Your task to perform on an android device: turn on location history Image 0: 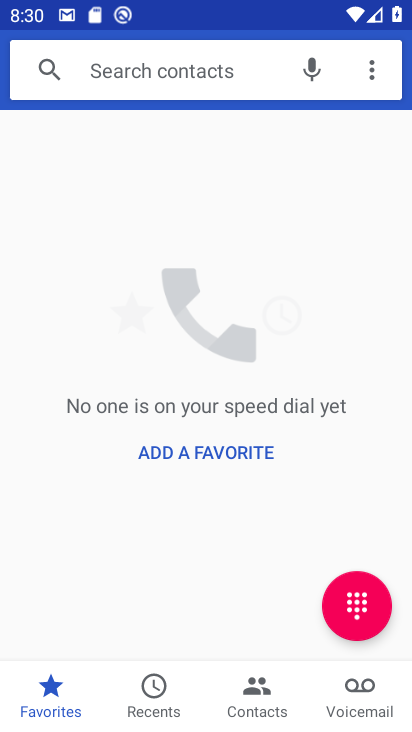
Step 0: press home button
Your task to perform on an android device: turn on location history Image 1: 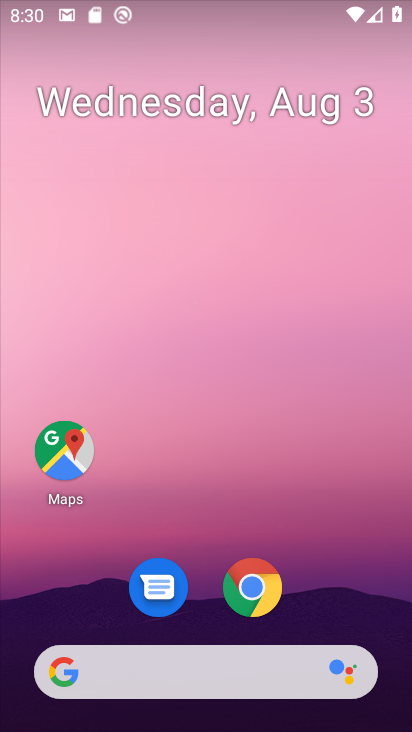
Step 1: drag from (223, 484) to (217, 24)
Your task to perform on an android device: turn on location history Image 2: 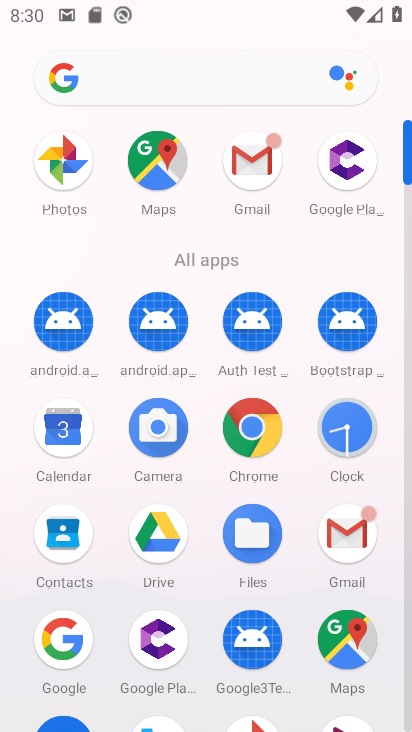
Step 2: click (345, 634)
Your task to perform on an android device: turn on location history Image 3: 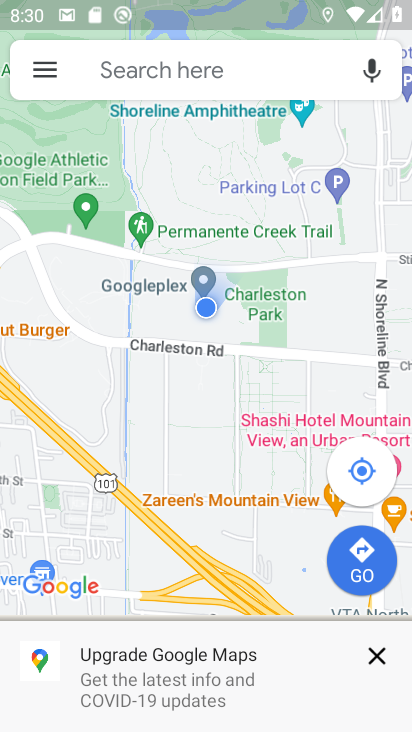
Step 3: click (45, 82)
Your task to perform on an android device: turn on location history Image 4: 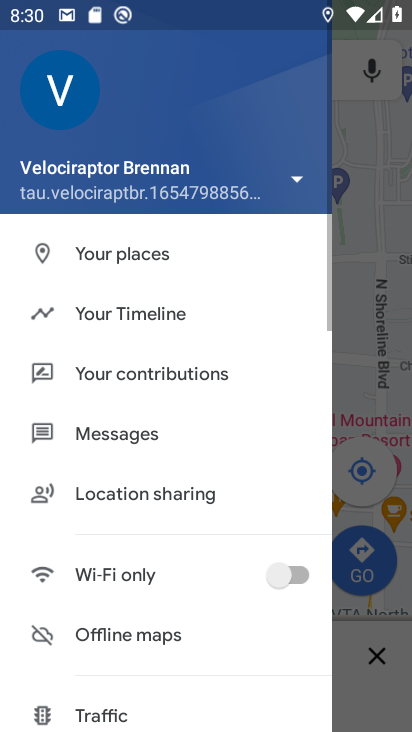
Step 4: click (157, 303)
Your task to perform on an android device: turn on location history Image 5: 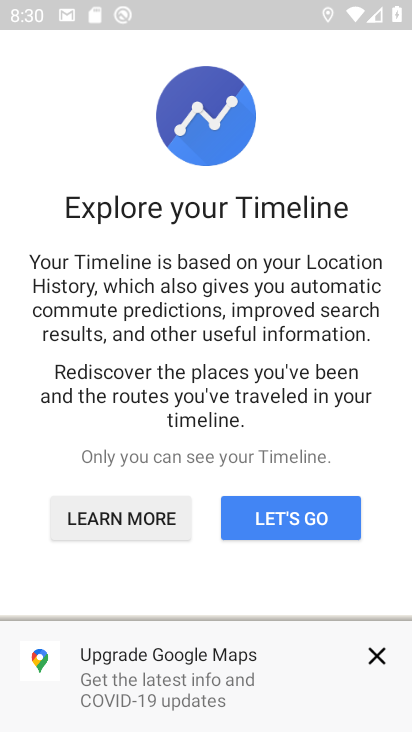
Step 5: click (266, 520)
Your task to perform on an android device: turn on location history Image 6: 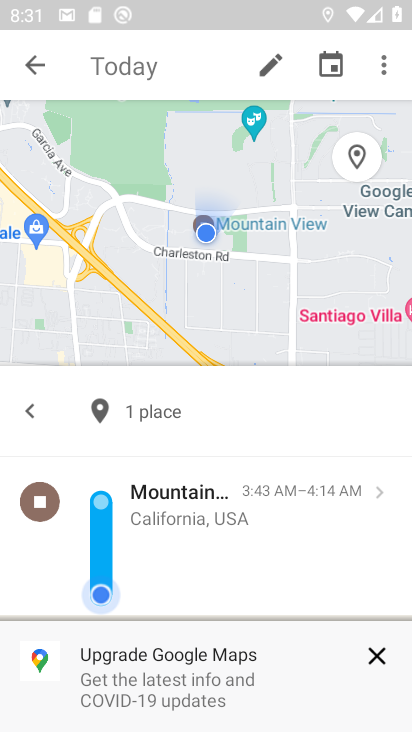
Step 6: click (381, 65)
Your task to perform on an android device: turn on location history Image 7: 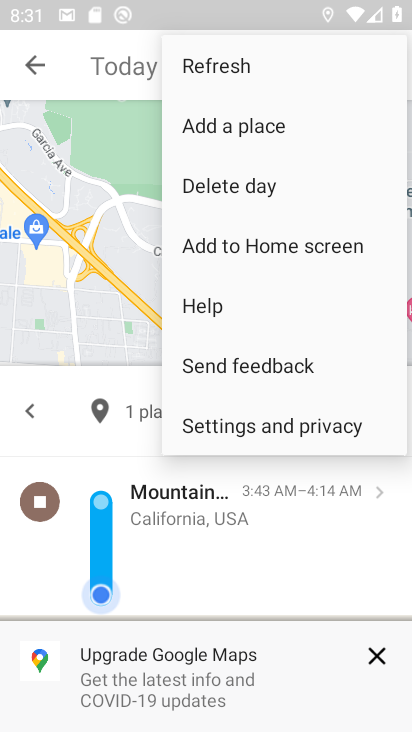
Step 7: click (276, 421)
Your task to perform on an android device: turn on location history Image 8: 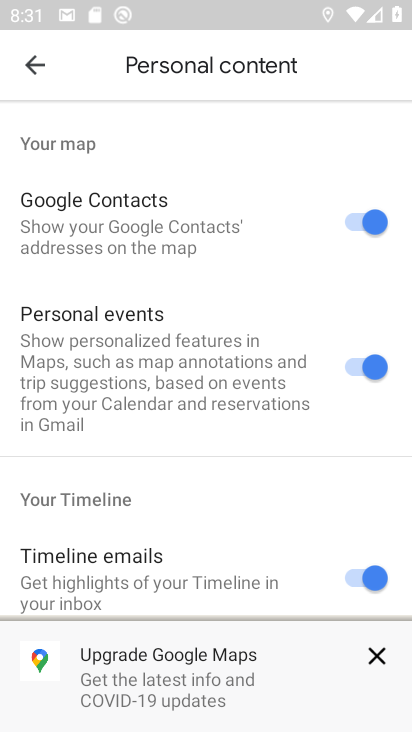
Step 8: drag from (235, 570) to (246, 166)
Your task to perform on an android device: turn on location history Image 9: 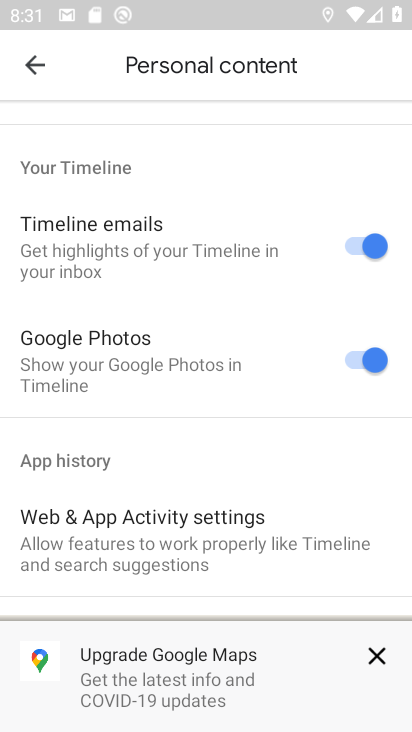
Step 9: drag from (248, 500) to (245, 86)
Your task to perform on an android device: turn on location history Image 10: 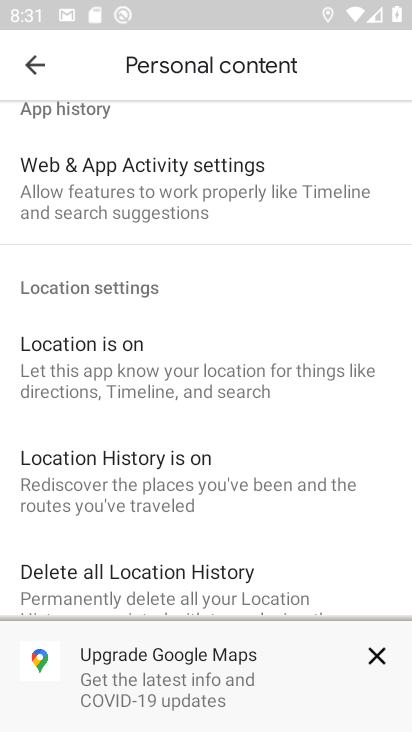
Step 10: click (96, 460)
Your task to perform on an android device: turn on location history Image 11: 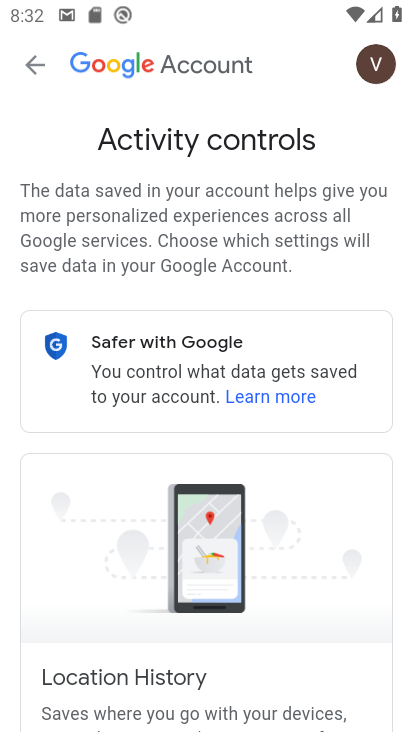
Step 11: task complete